Your task to perform on an android device: Go to battery settings Image 0: 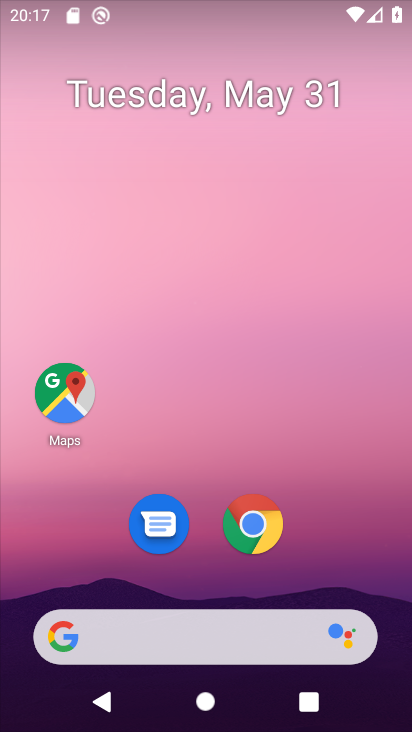
Step 0: drag from (350, 546) to (285, 13)
Your task to perform on an android device: Go to battery settings Image 1: 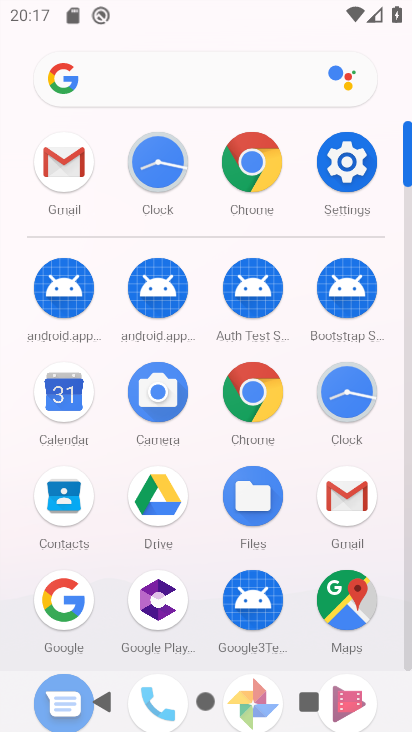
Step 1: click (341, 156)
Your task to perform on an android device: Go to battery settings Image 2: 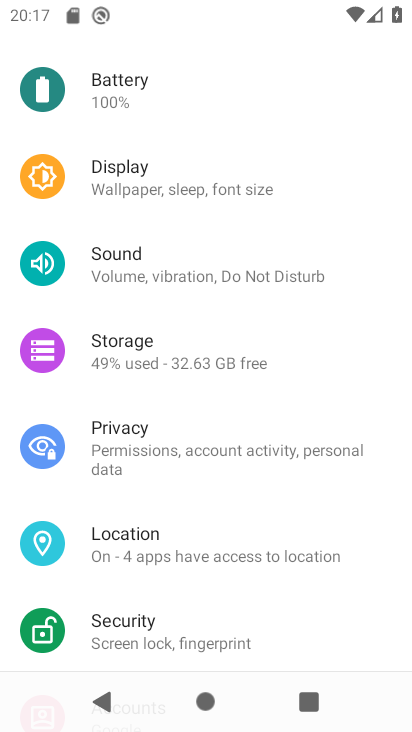
Step 2: click (232, 91)
Your task to perform on an android device: Go to battery settings Image 3: 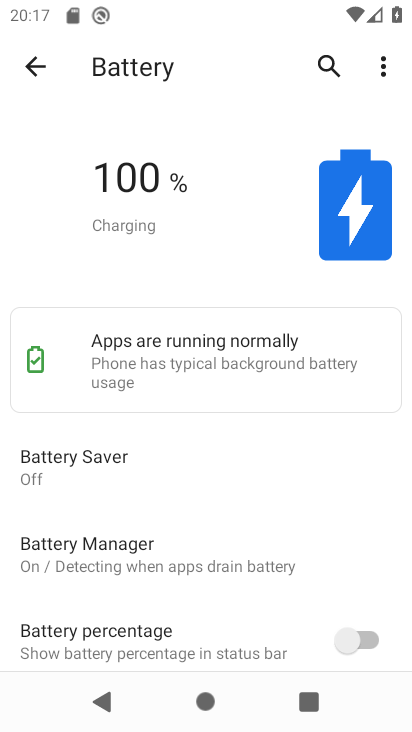
Step 3: task complete